Your task to perform on an android device: find snoozed emails in the gmail app Image 0: 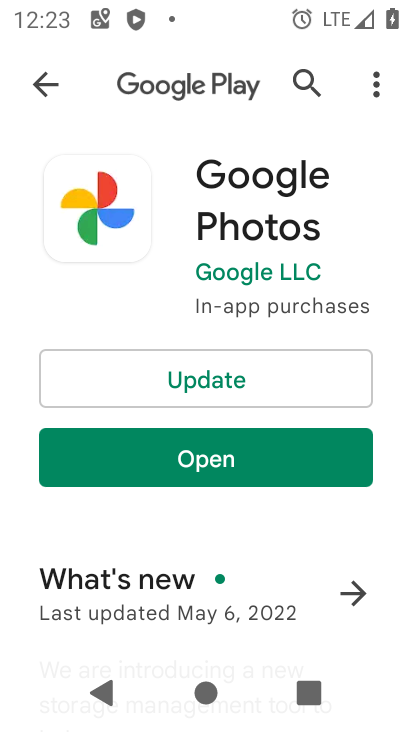
Step 0: press home button
Your task to perform on an android device: find snoozed emails in the gmail app Image 1: 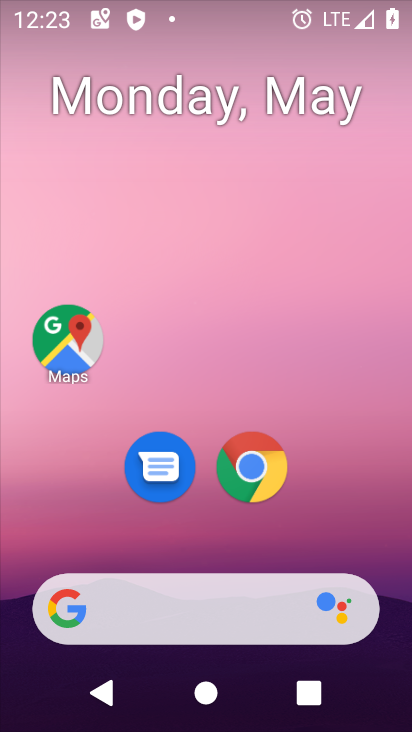
Step 1: drag from (369, 560) to (347, 7)
Your task to perform on an android device: find snoozed emails in the gmail app Image 2: 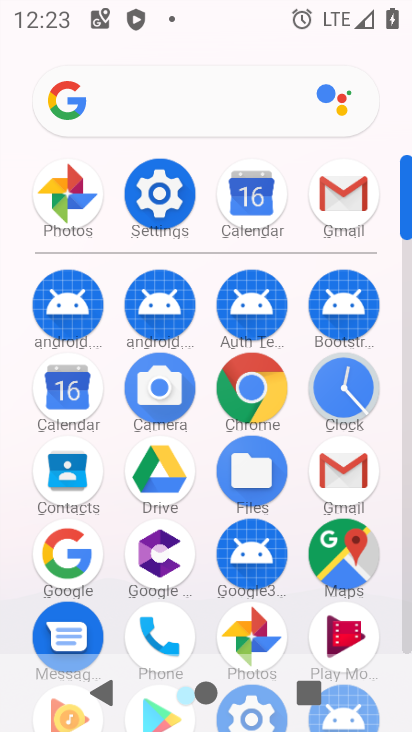
Step 2: click (346, 200)
Your task to perform on an android device: find snoozed emails in the gmail app Image 3: 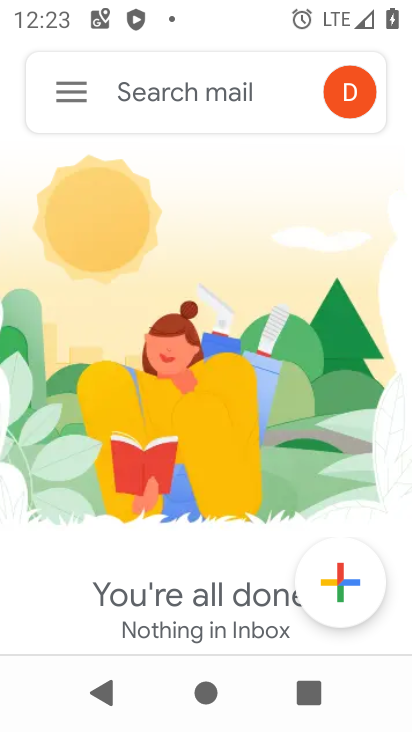
Step 3: click (77, 88)
Your task to perform on an android device: find snoozed emails in the gmail app Image 4: 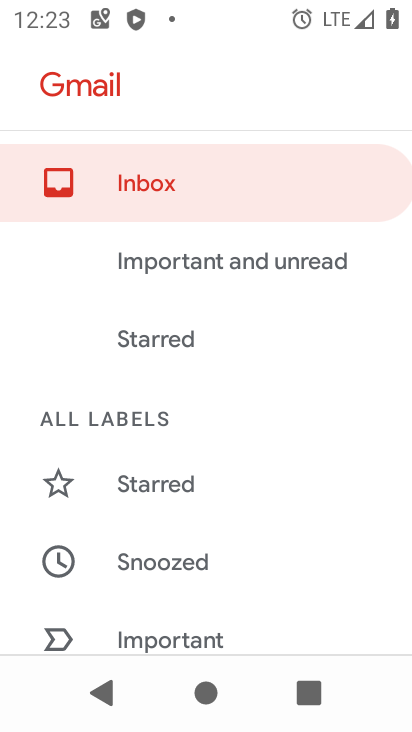
Step 4: drag from (256, 505) to (237, 226)
Your task to perform on an android device: find snoozed emails in the gmail app Image 5: 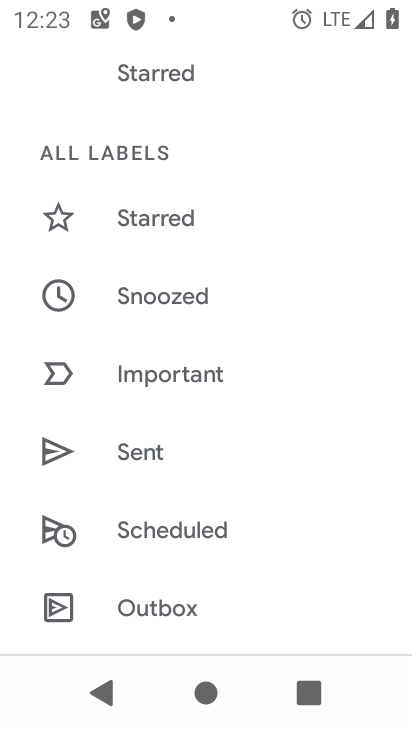
Step 5: click (173, 304)
Your task to perform on an android device: find snoozed emails in the gmail app Image 6: 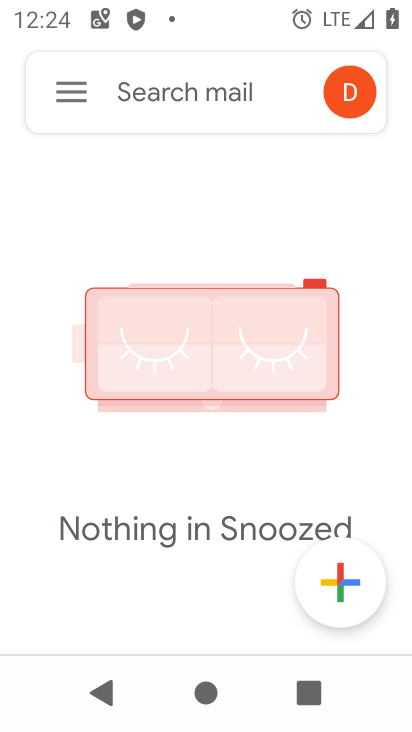
Step 6: task complete